Your task to perform on an android device: Set the phone to "Do not disturb". Image 0: 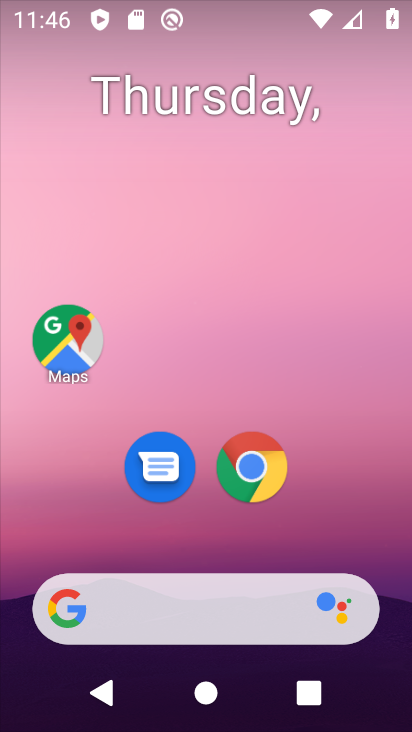
Step 0: drag from (377, 574) to (377, 0)
Your task to perform on an android device: Set the phone to "Do not disturb". Image 1: 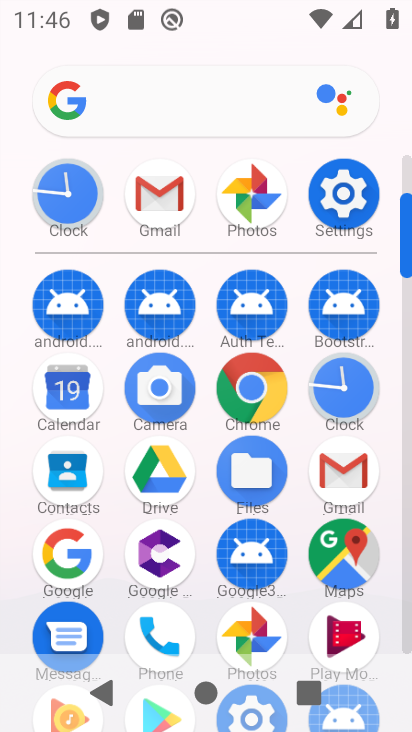
Step 1: click (345, 192)
Your task to perform on an android device: Set the phone to "Do not disturb". Image 2: 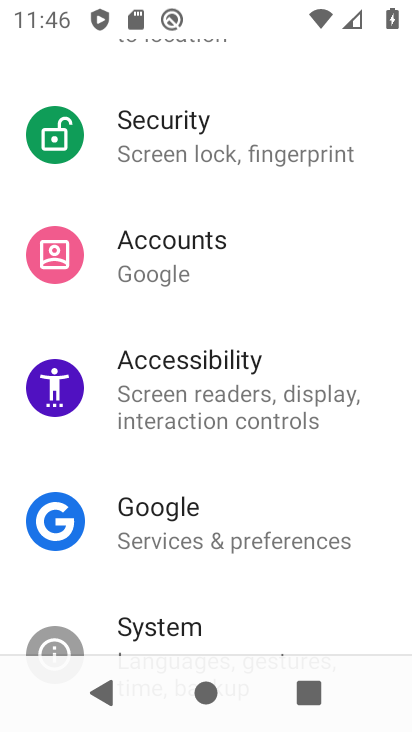
Step 2: drag from (345, 311) to (360, 525)
Your task to perform on an android device: Set the phone to "Do not disturb". Image 3: 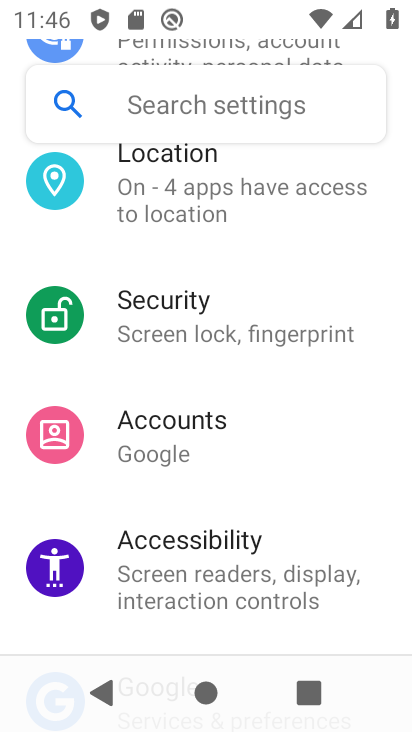
Step 3: drag from (356, 275) to (341, 581)
Your task to perform on an android device: Set the phone to "Do not disturb". Image 4: 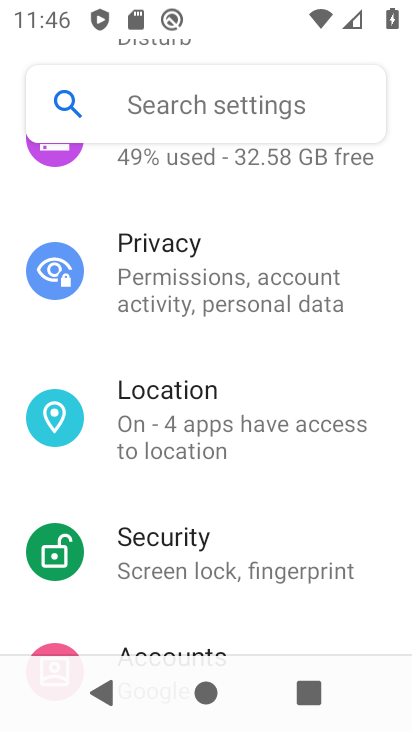
Step 4: drag from (344, 248) to (347, 571)
Your task to perform on an android device: Set the phone to "Do not disturb". Image 5: 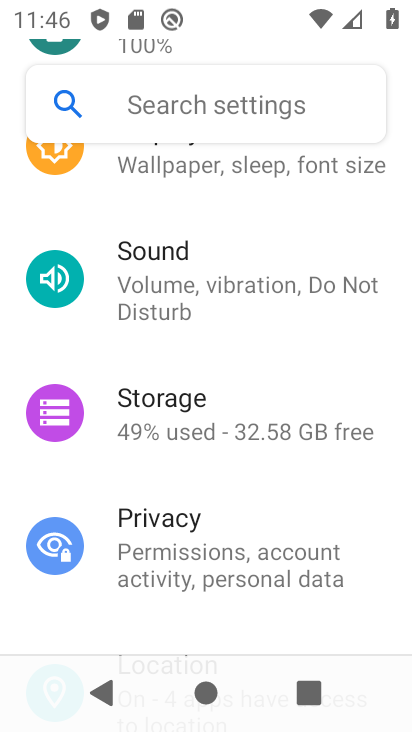
Step 5: click (150, 266)
Your task to perform on an android device: Set the phone to "Do not disturb". Image 6: 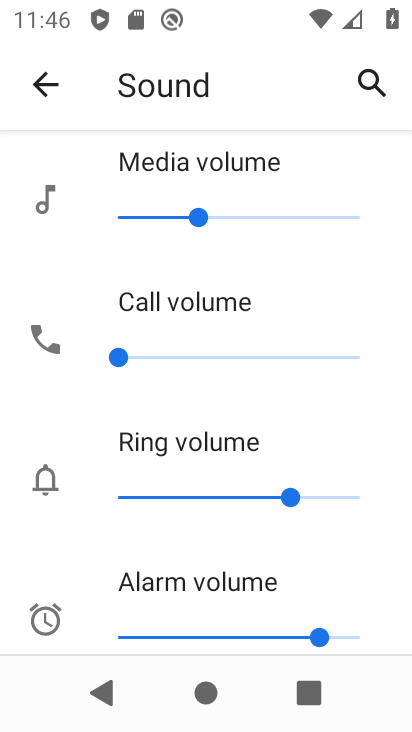
Step 6: drag from (345, 561) to (353, 34)
Your task to perform on an android device: Set the phone to "Do not disturb". Image 7: 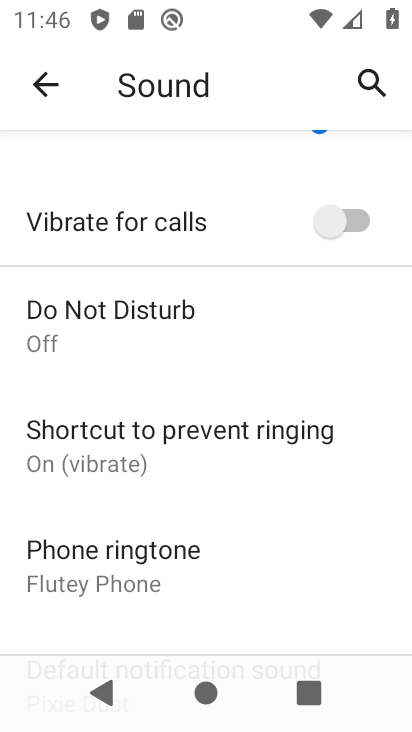
Step 7: click (69, 333)
Your task to perform on an android device: Set the phone to "Do not disturb". Image 8: 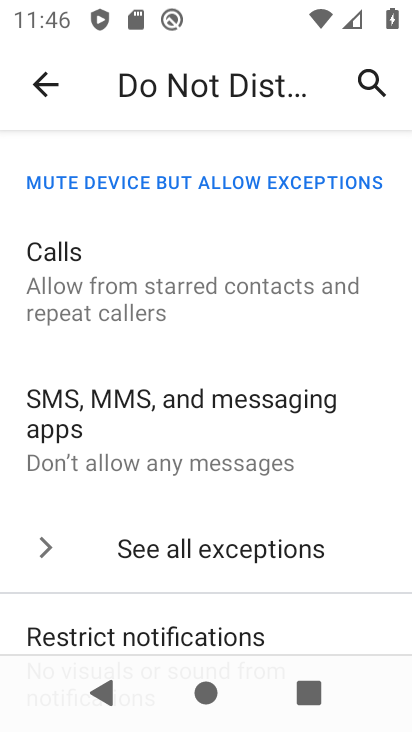
Step 8: drag from (166, 570) to (169, 33)
Your task to perform on an android device: Set the phone to "Do not disturb". Image 9: 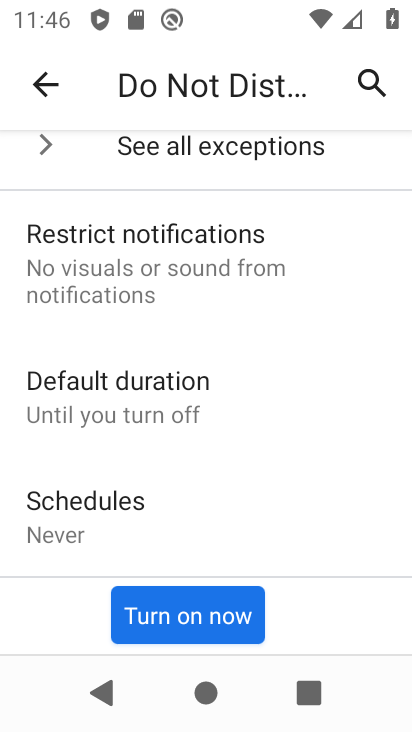
Step 9: click (188, 614)
Your task to perform on an android device: Set the phone to "Do not disturb". Image 10: 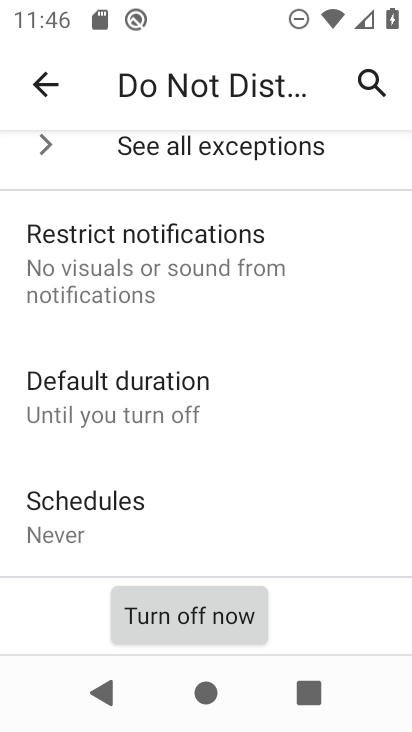
Step 10: task complete